Your task to perform on an android device: change timer sound Image 0: 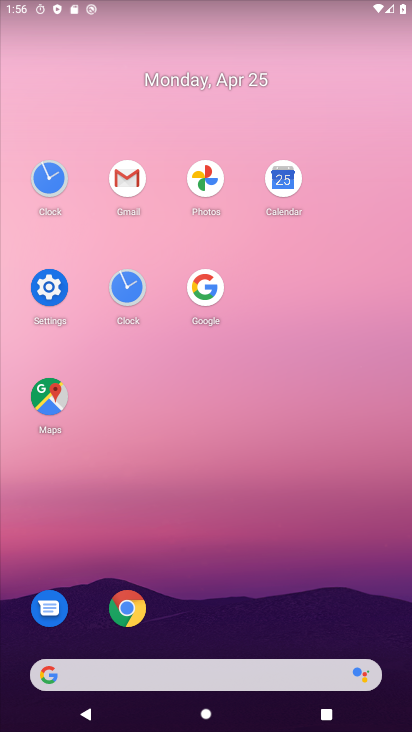
Step 0: click (128, 289)
Your task to perform on an android device: change timer sound Image 1: 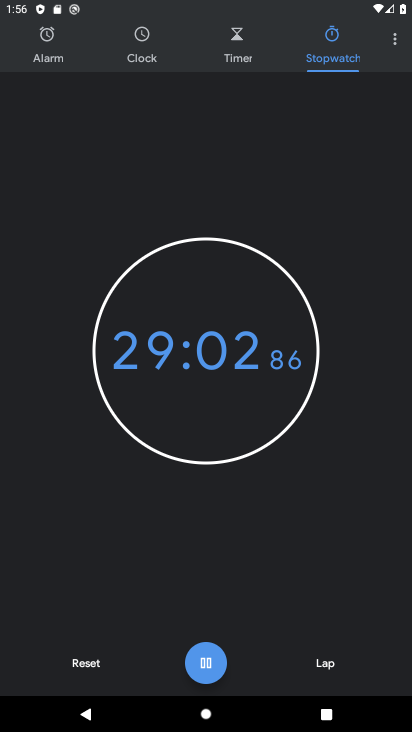
Step 1: click (394, 33)
Your task to perform on an android device: change timer sound Image 2: 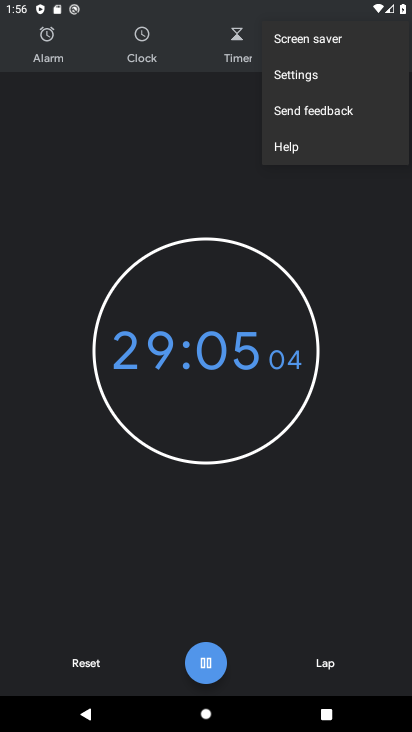
Step 2: click (331, 80)
Your task to perform on an android device: change timer sound Image 3: 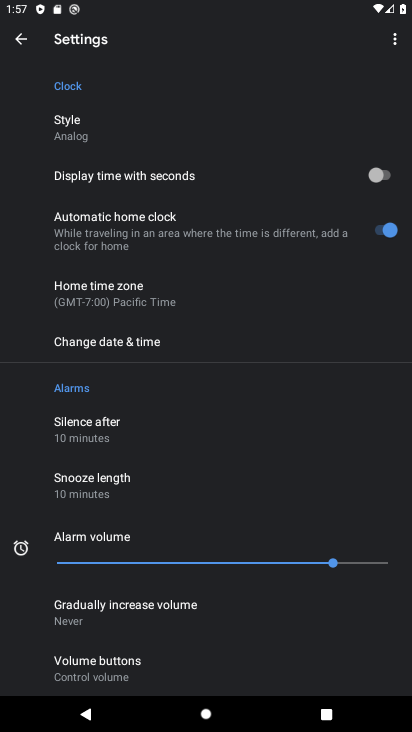
Step 3: drag from (224, 487) to (279, 113)
Your task to perform on an android device: change timer sound Image 4: 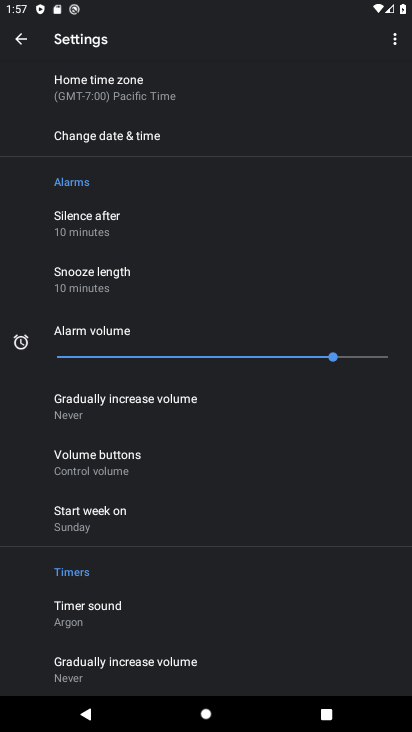
Step 4: click (167, 605)
Your task to perform on an android device: change timer sound Image 5: 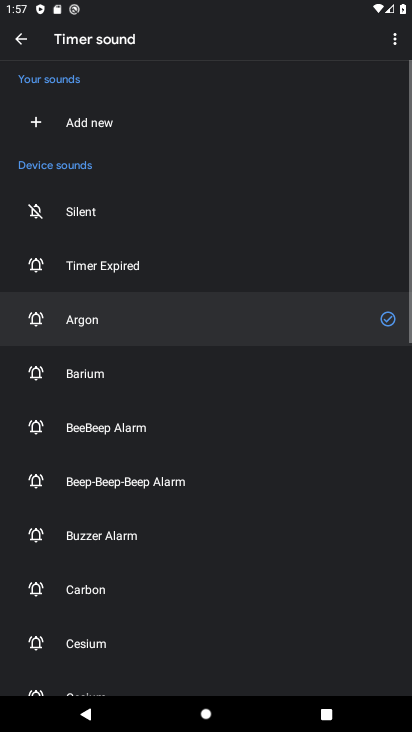
Step 5: click (128, 272)
Your task to perform on an android device: change timer sound Image 6: 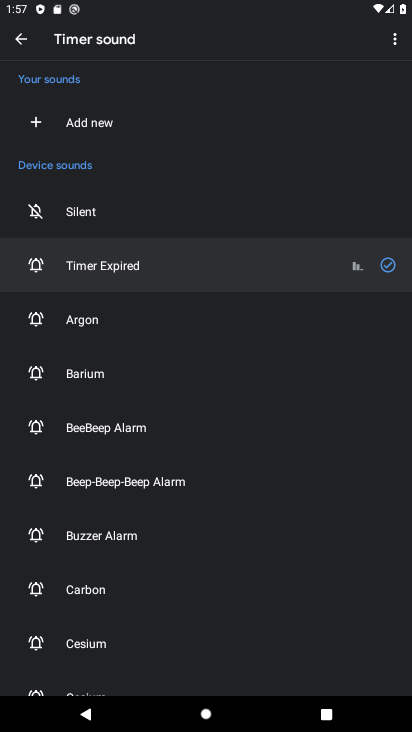
Step 6: task complete